Your task to perform on an android device: Open Android settings Image 0: 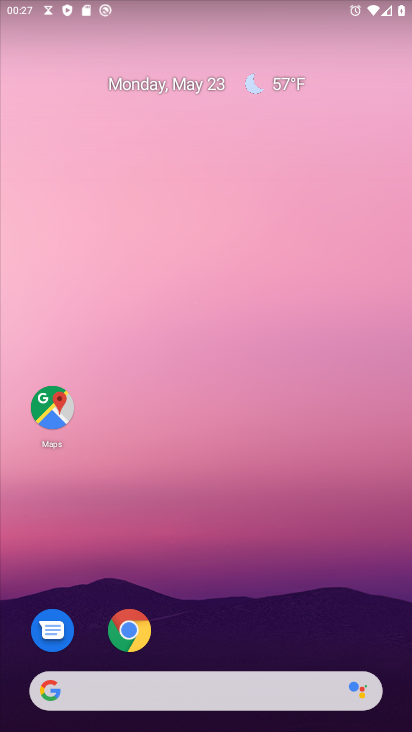
Step 0: drag from (335, 554) to (228, 63)
Your task to perform on an android device: Open Android settings Image 1: 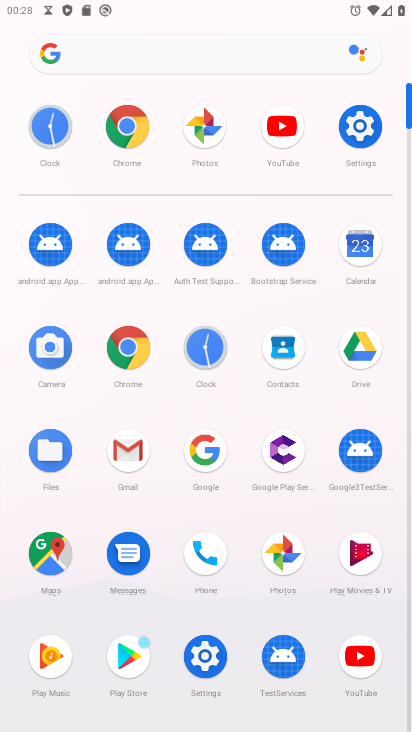
Step 1: click (211, 662)
Your task to perform on an android device: Open Android settings Image 2: 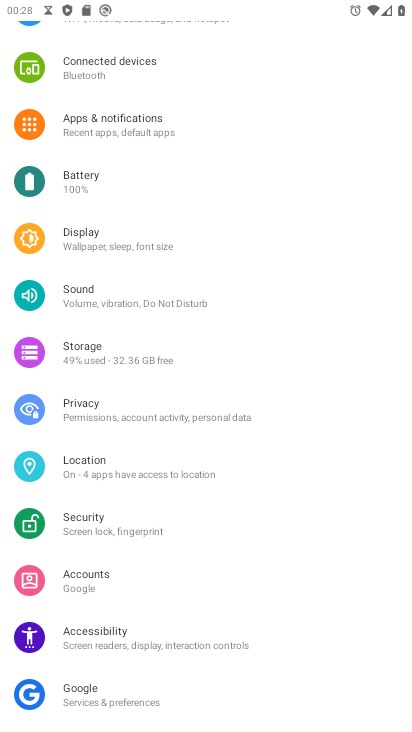
Step 2: drag from (222, 652) to (189, 51)
Your task to perform on an android device: Open Android settings Image 3: 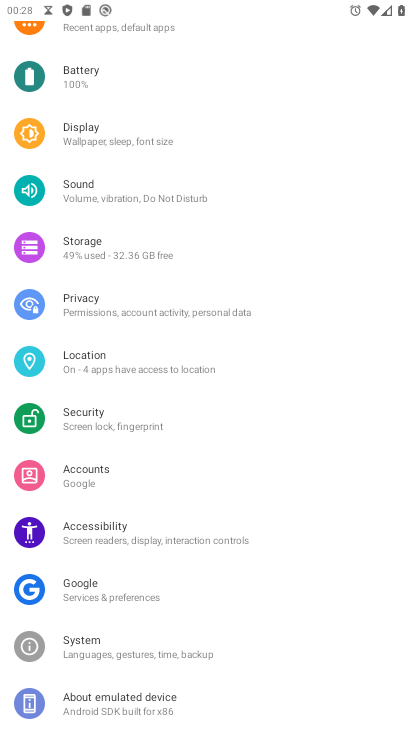
Step 3: click (194, 696)
Your task to perform on an android device: Open Android settings Image 4: 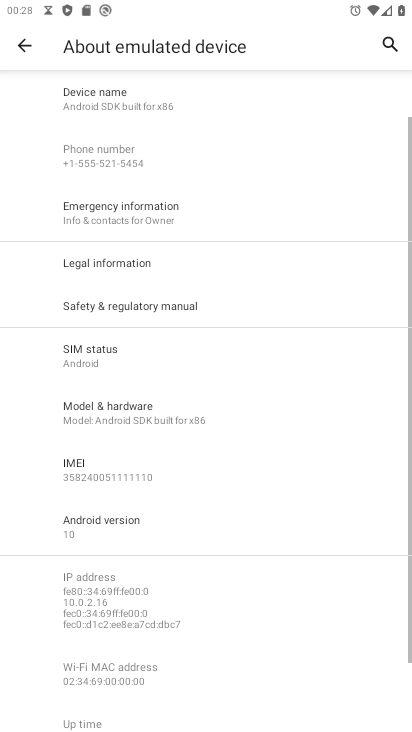
Step 4: click (184, 520)
Your task to perform on an android device: Open Android settings Image 5: 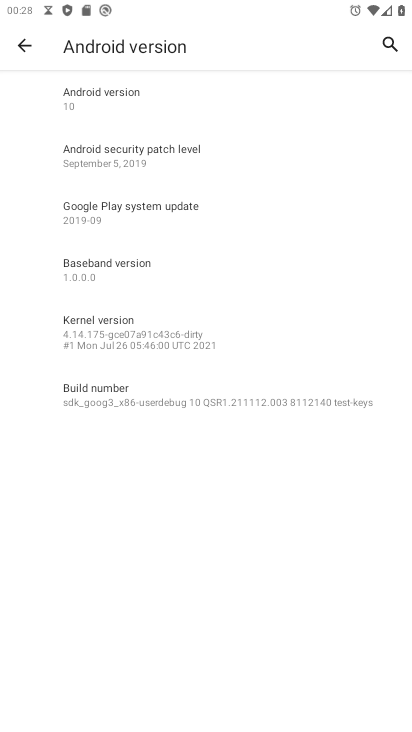
Step 5: task complete